Your task to perform on an android device: Add "logitech g pro" to the cart on amazon Image 0: 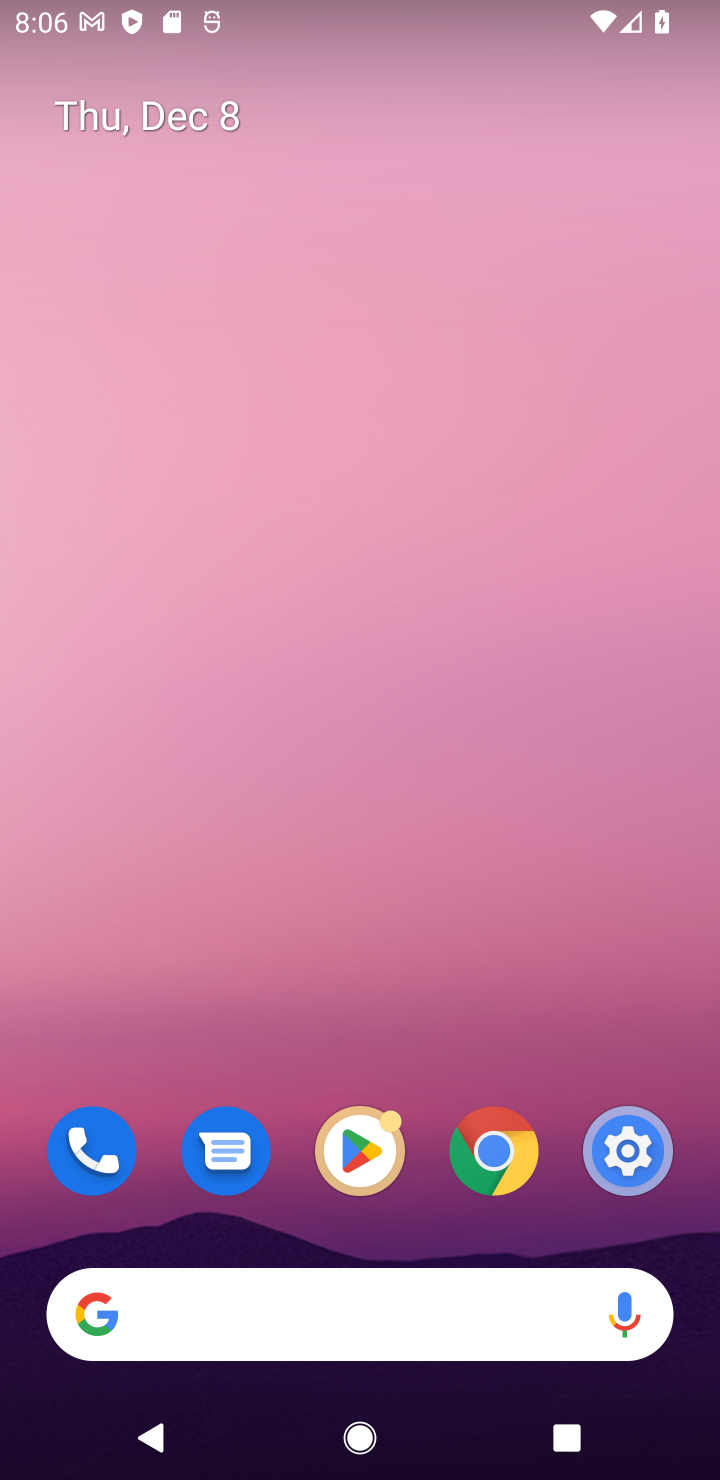
Step 0: task complete